Your task to perform on an android device: turn off priority inbox in the gmail app Image 0: 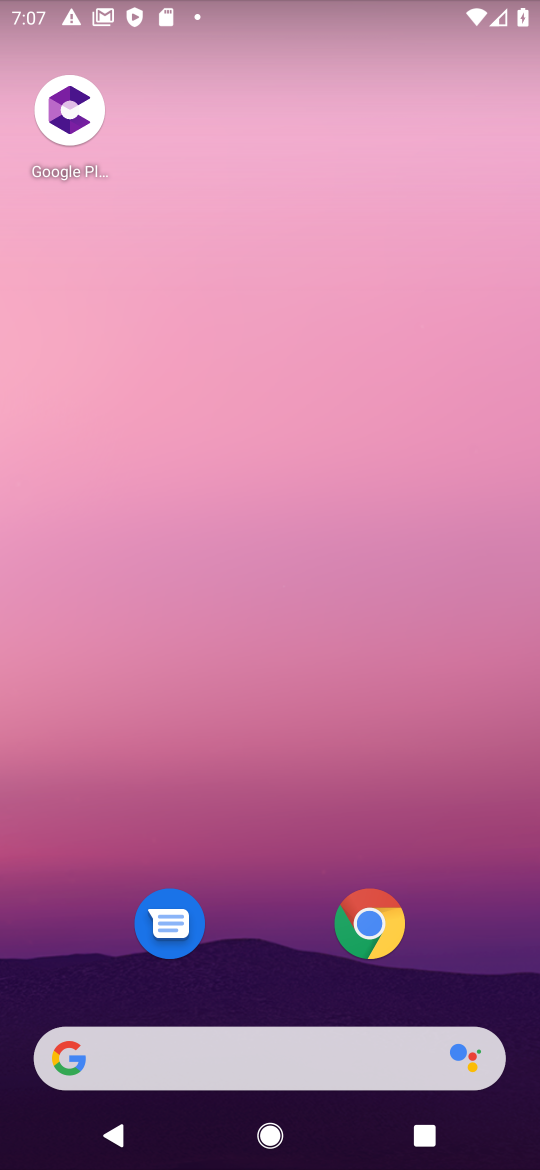
Step 0: drag from (475, 998) to (281, 46)
Your task to perform on an android device: turn off priority inbox in the gmail app Image 1: 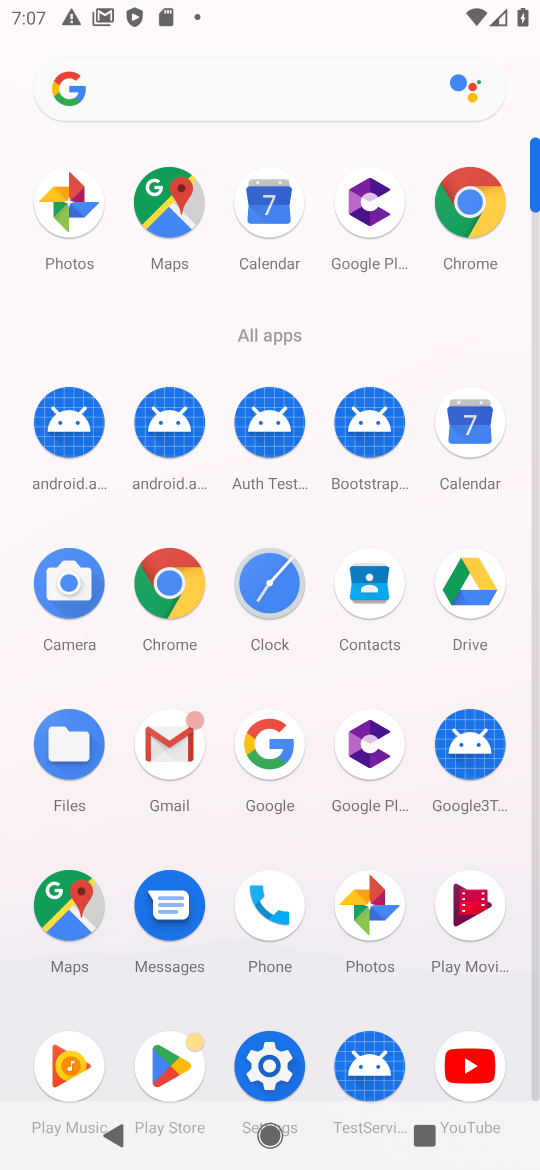
Step 1: click (160, 763)
Your task to perform on an android device: turn off priority inbox in the gmail app Image 2: 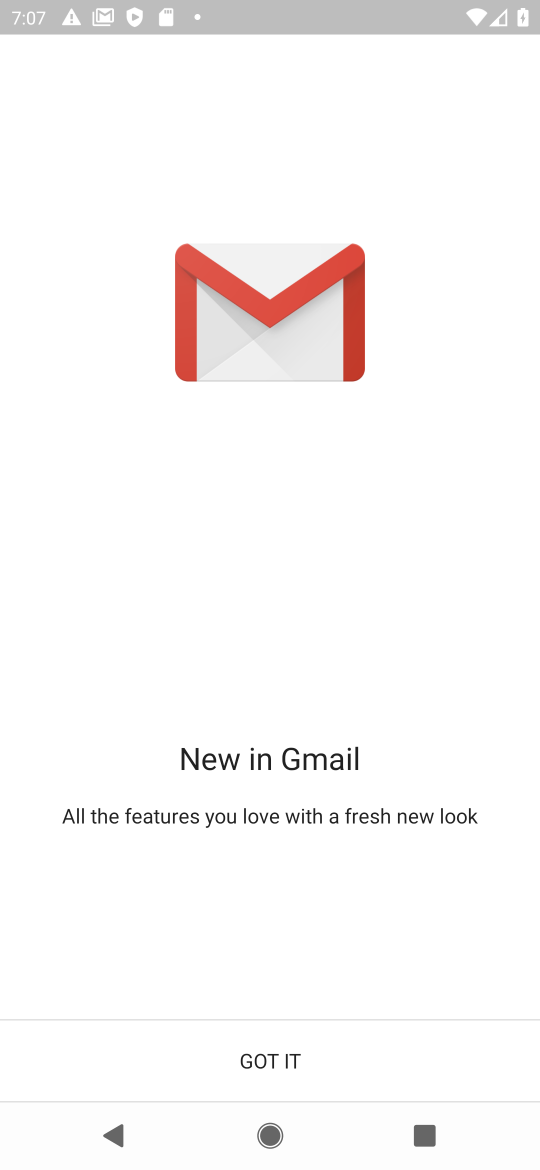
Step 2: click (274, 1068)
Your task to perform on an android device: turn off priority inbox in the gmail app Image 3: 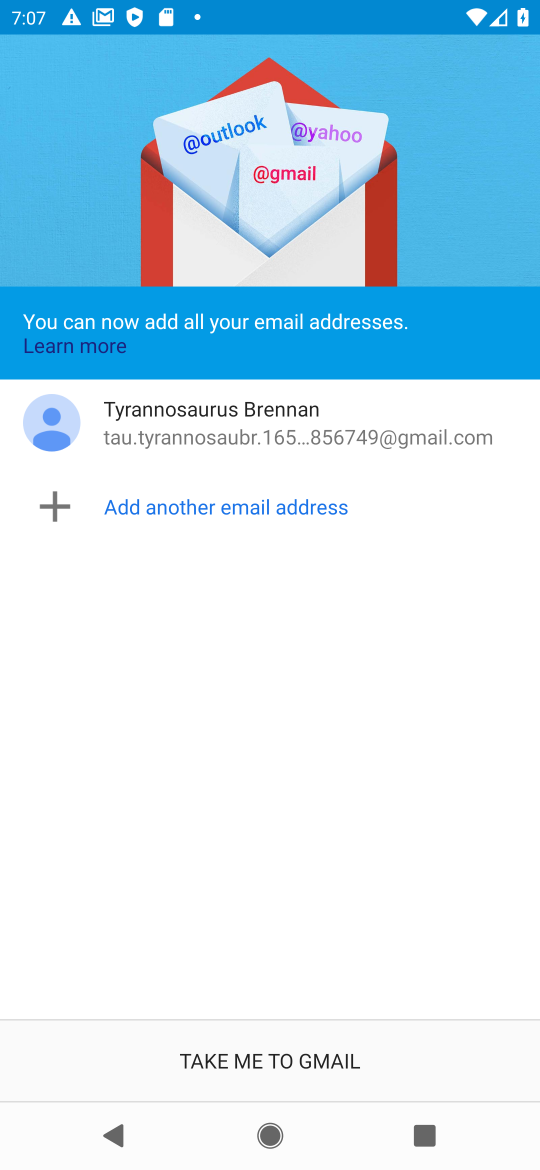
Step 3: click (274, 1068)
Your task to perform on an android device: turn off priority inbox in the gmail app Image 4: 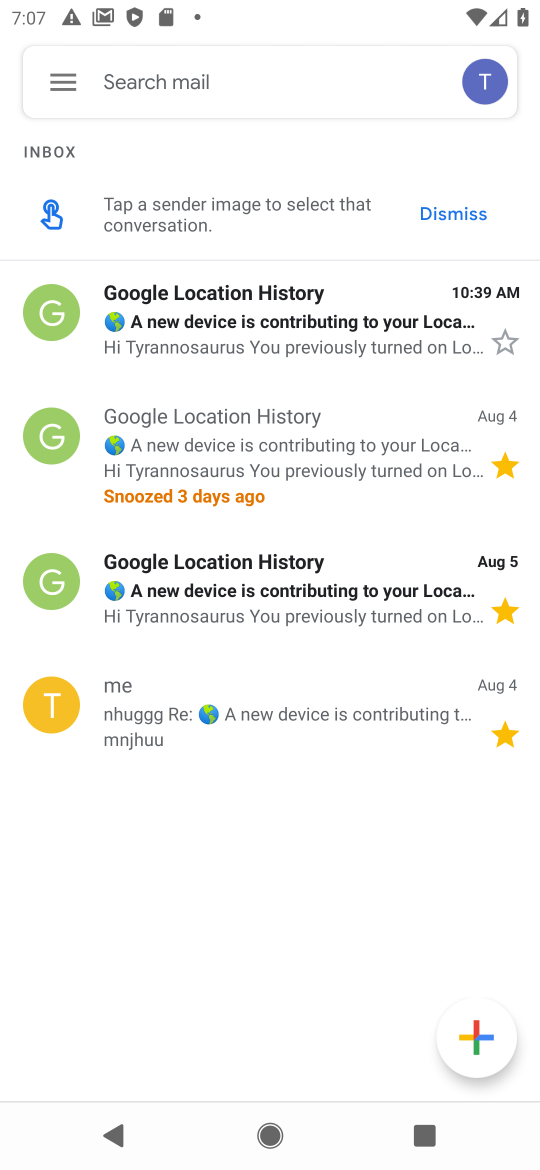
Step 4: click (64, 90)
Your task to perform on an android device: turn off priority inbox in the gmail app Image 5: 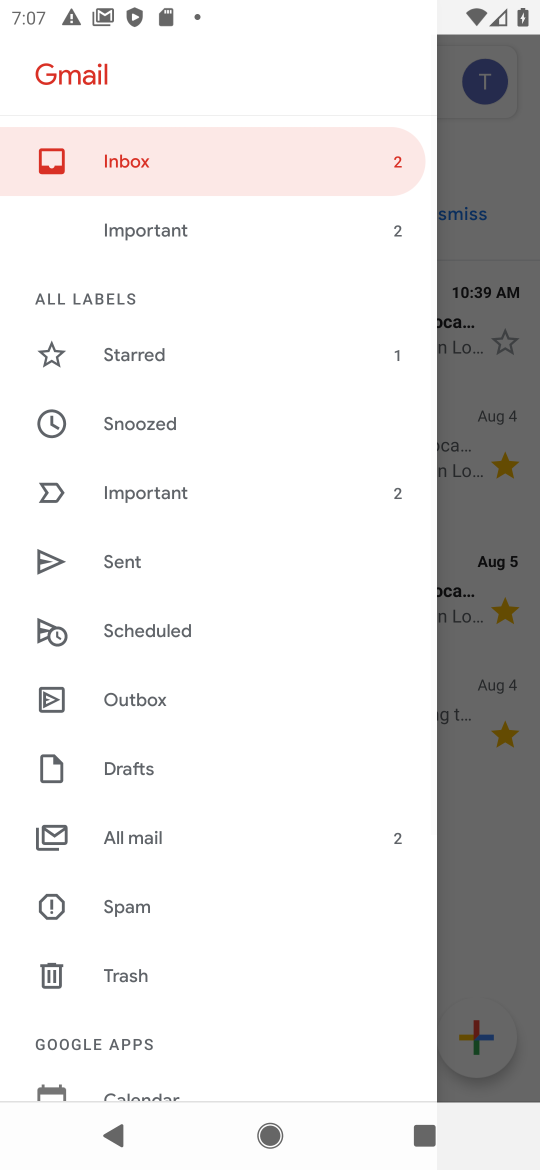
Step 5: drag from (73, 1028) to (236, 109)
Your task to perform on an android device: turn off priority inbox in the gmail app Image 6: 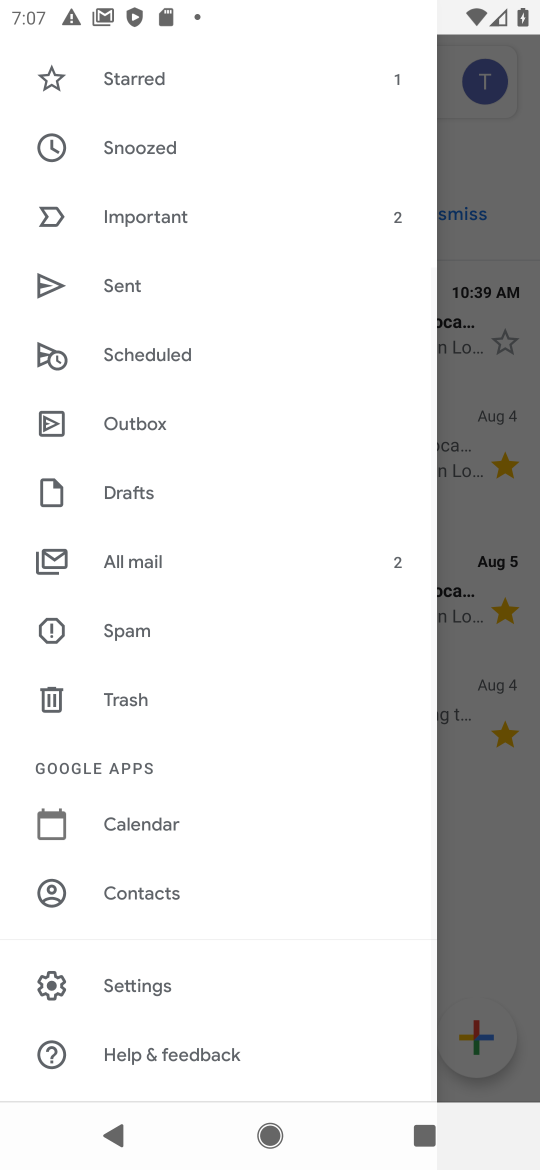
Step 6: click (126, 973)
Your task to perform on an android device: turn off priority inbox in the gmail app Image 7: 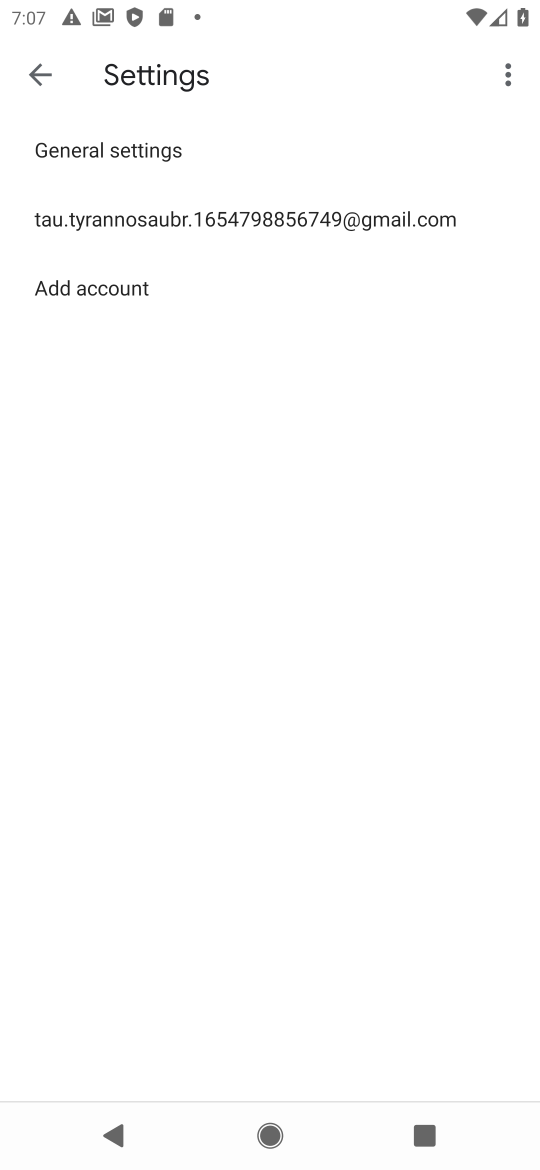
Step 7: click (262, 237)
Your task to perform on an android device: turn off priority inbox in the gmail app Image 8: 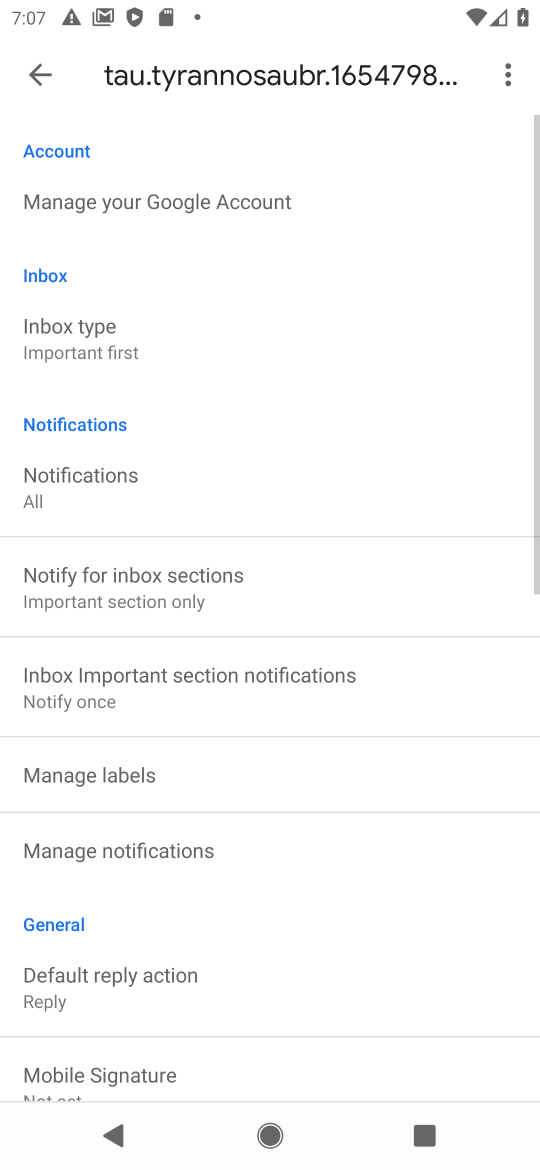
Step 8: click (150, 361)
Your task to perform on an android device: turn off priority inbox in the gmail app Image 9: 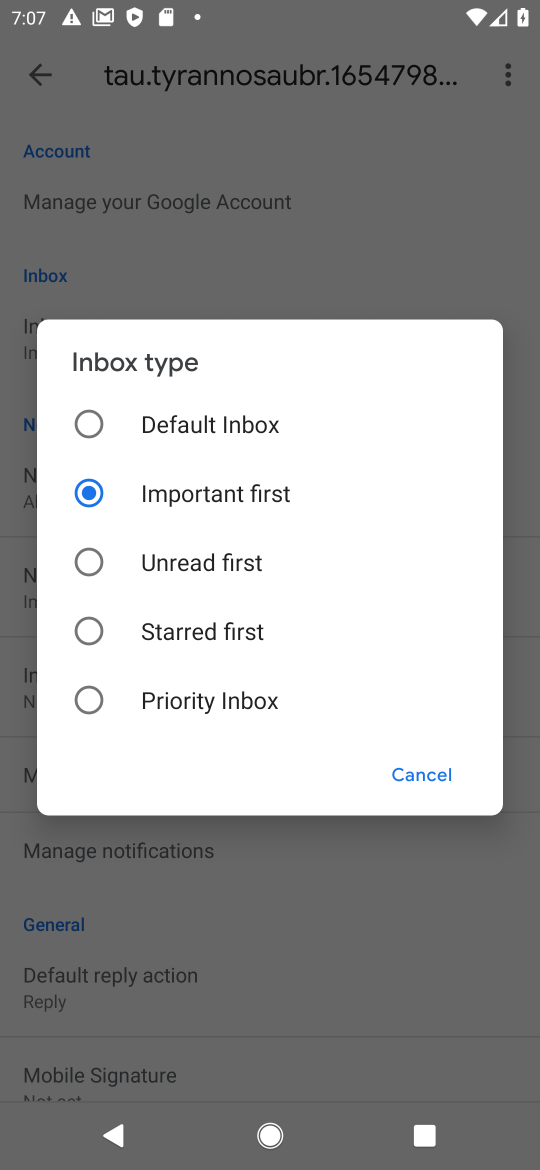
Step 9: click (188, 426)
Your task to perform on an android device: turn off priority inbox in the gmail app Image 10: 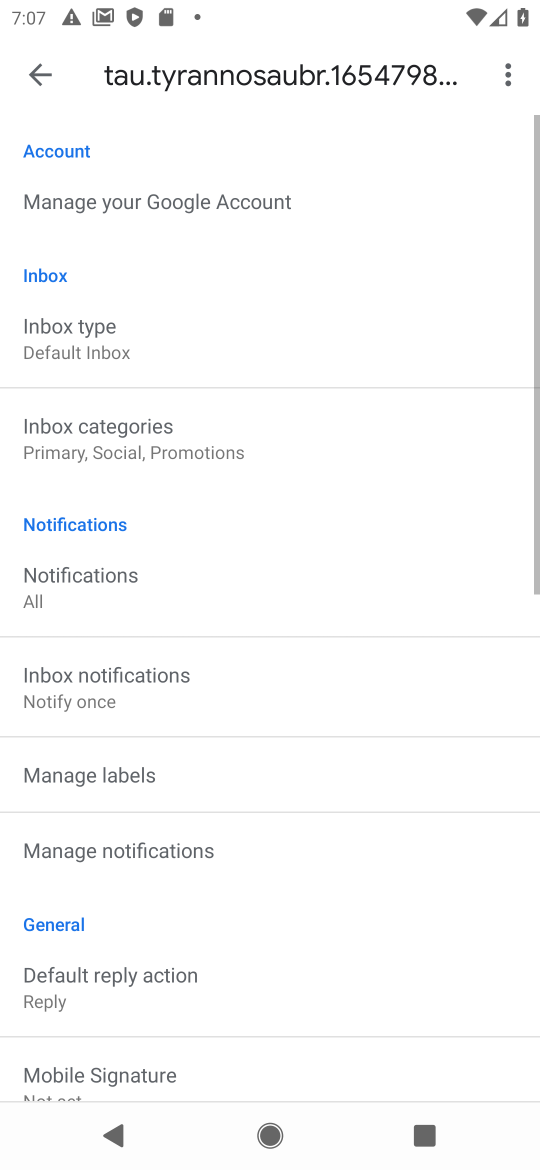
Step 10: task complete